Your task to perform on an android device: open chrome and create a bookmark for the current page Image 0: 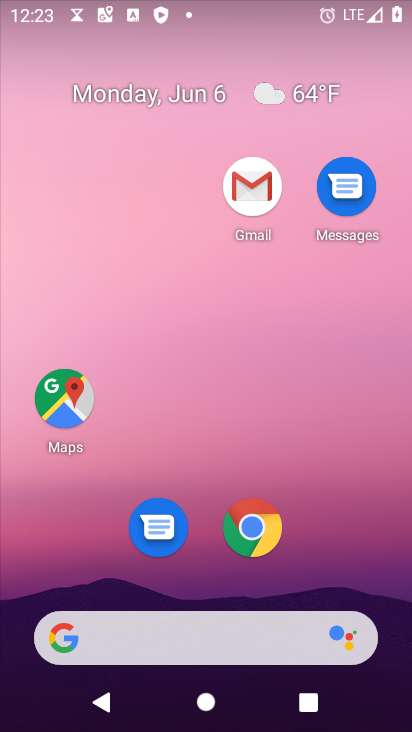
Step 0: click (250, 531)
Your task to perform on an android device: open chrome and create a bookmark for the current page Image 1: 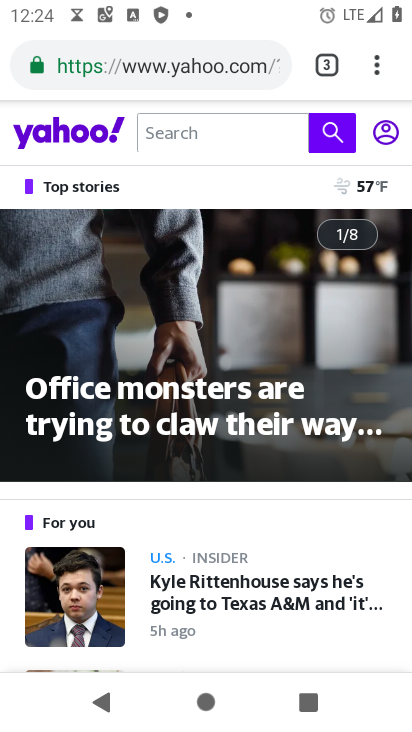
Step 1: click (387, 58)
Your task to perform on an android device: open chrome and create a bookmark for the current page Image 2: 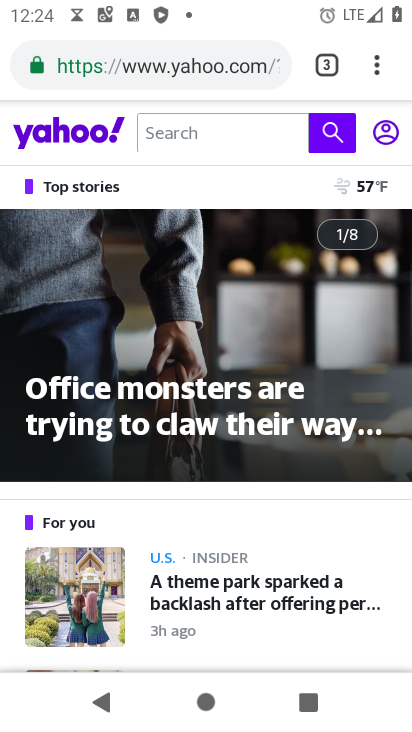
Step 2: click (383, 59)
Your task to perform on an android device: open chrome and create a bookmark for the current page Image 3: 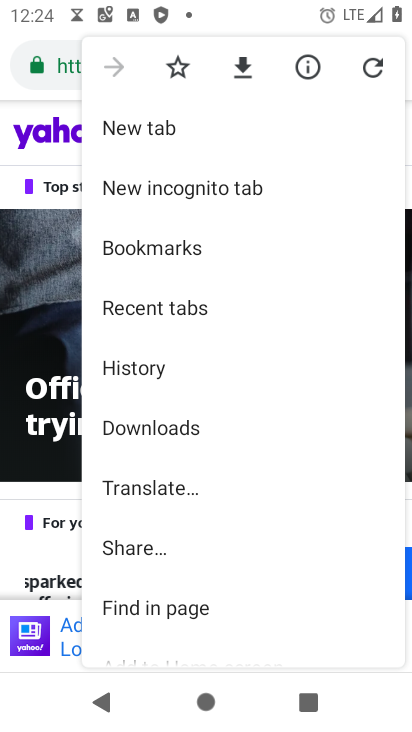
Step 3: click (181, 63)
Your task to perform on an android device: open chrome and create a bookmark for the current page Image 4: 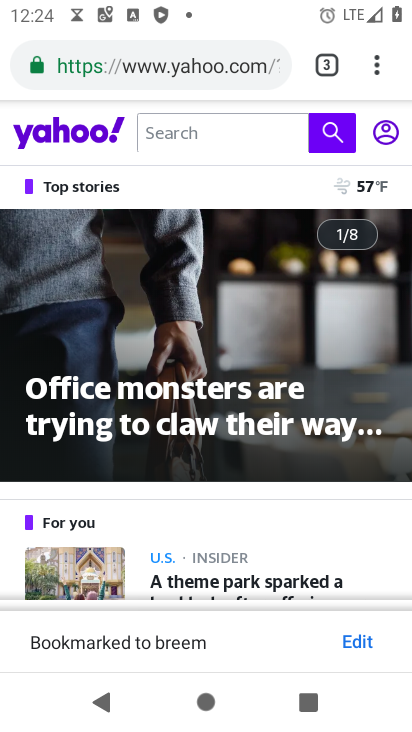
Step 4: task complete